Your task to perform on an android device: Go to location settings Image 0: 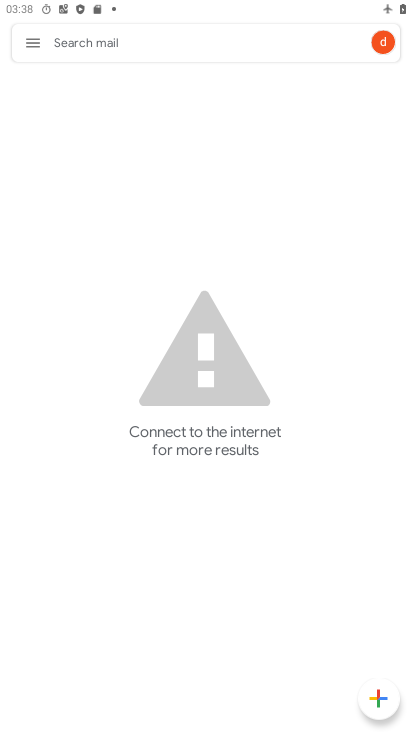
Step 0: press home button
Your task to perform on an android device: Go to location settings Image 1: 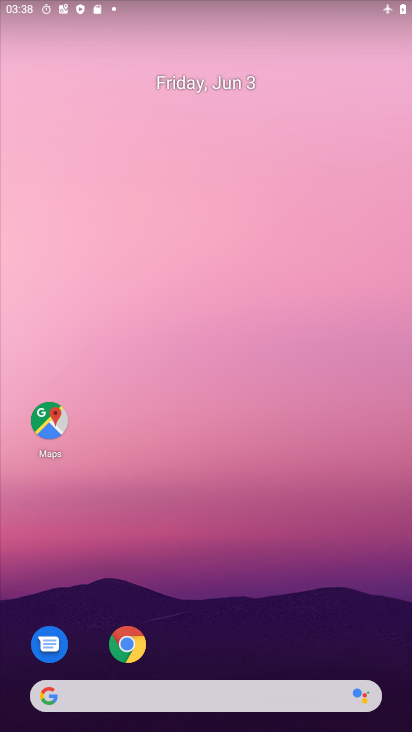
Step 1: drag from (214, 640) to (229, 155)
Your task to perform on an android device: Go to location settings Image 2: 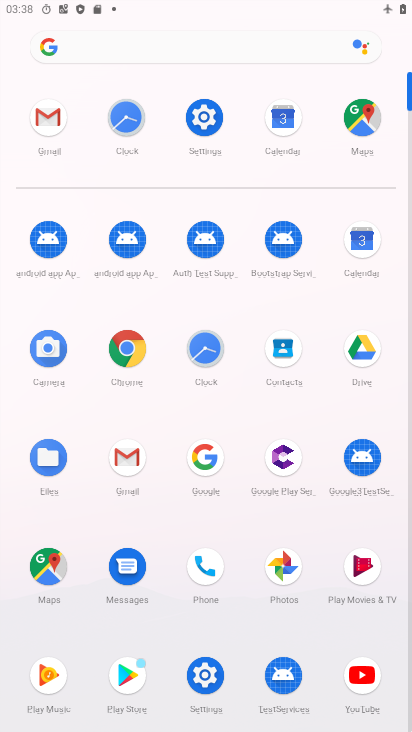
Step 2: click (218, 124)
Your task to perform on an android device: Go to location settings Image 3: 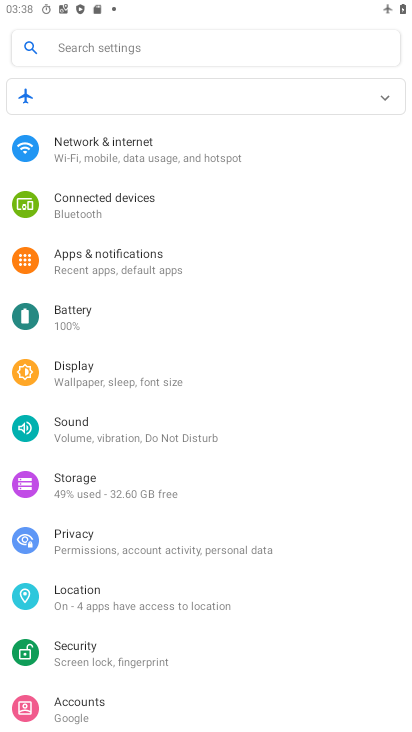
Step 3: click (115, 584)
Your task to perform on an android device: Go to location settings Image 4: 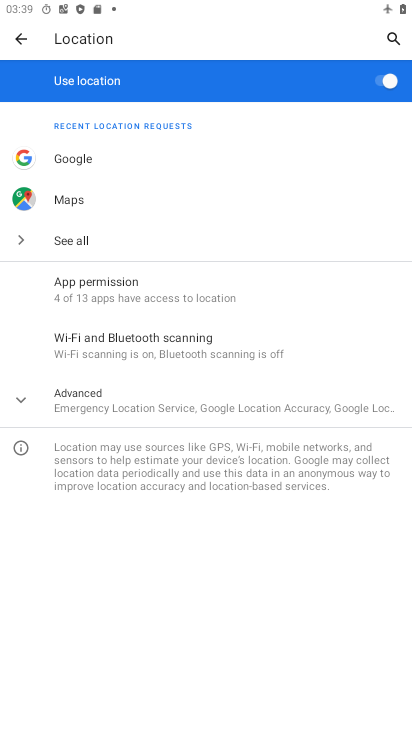
Step 4: task complete